Your task to perform on an android device: turn on translation in the chrome app Image 0: 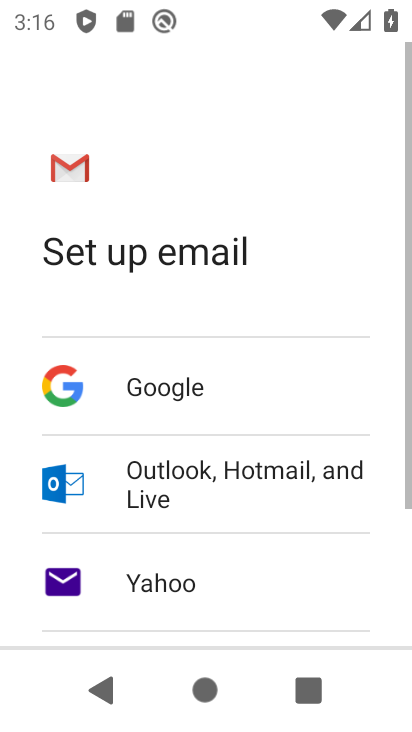
Step 0: press home button
Your task to perform on an android device: turn on translation in the chrome app Image 1: 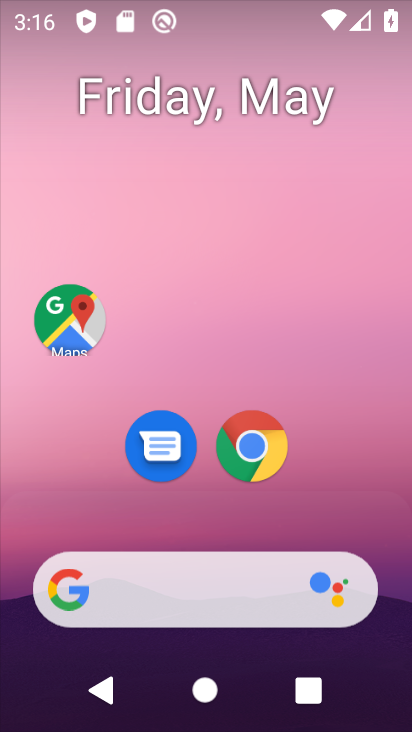
Step 1: click (243, 450)
Your task to perform on an android device: turn on translation in the chrome app Image 2: 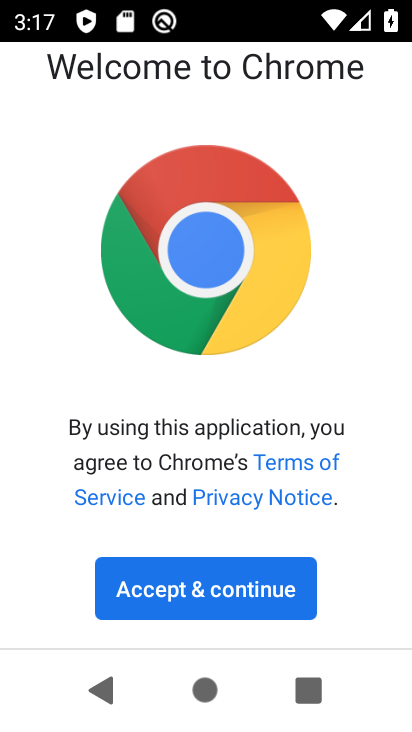
Step 2: click (238, 587)
Your task to perform on an android device: turn on translation in the chrome app Image 3: 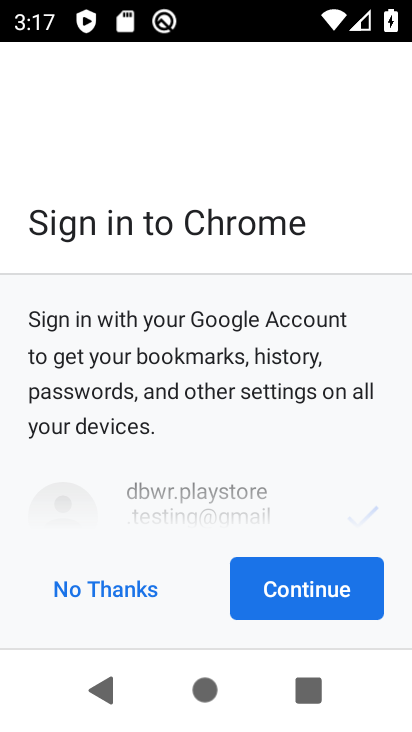
Step 3: click (254, 583)
Your task to perform on an android device: turn on translation in the chrome app Image 4: 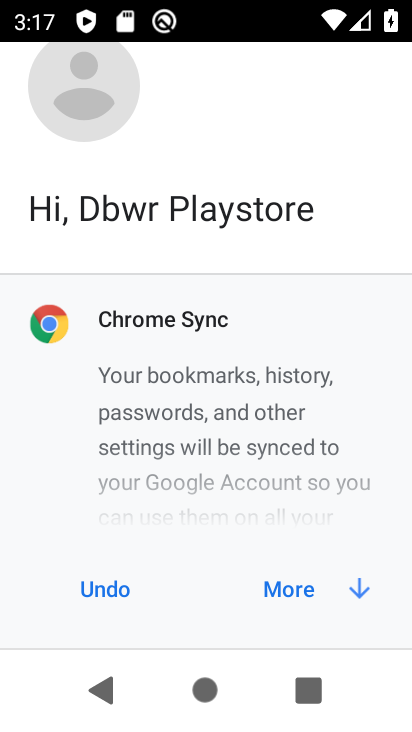
Step 4: click (294, 587)
Your task to perform on an android device: turn on translation in the chrome app Image 5: 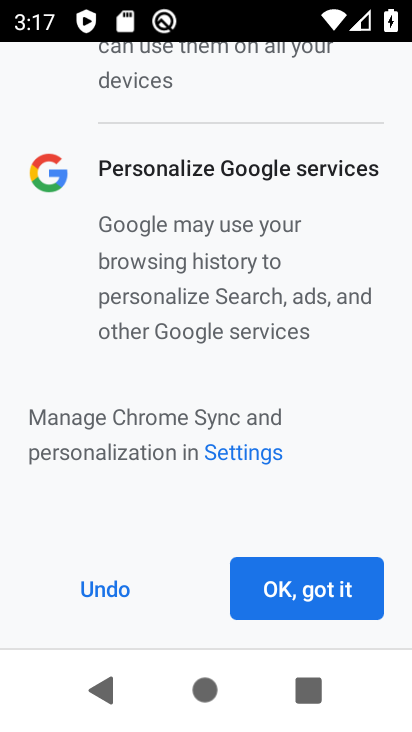
Step 5: click (294, 587)
Your task to perform on an android device: turn on translation in the chrome app Image 6: 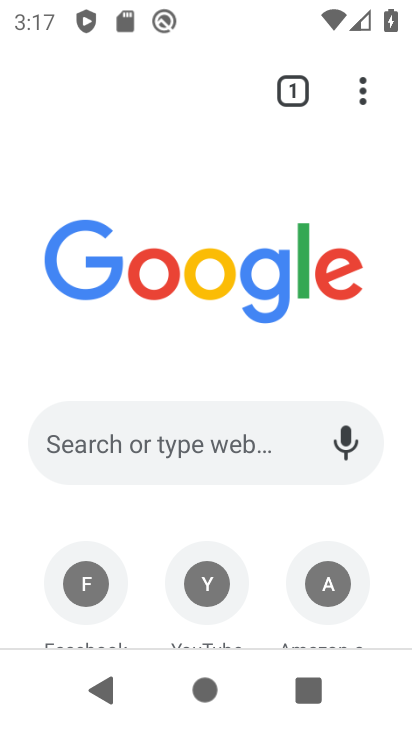
Step 6: drag from (359, 91) to (138, 467)
Your task to perform on an android device: turn on translation in the chrome app Image 7: 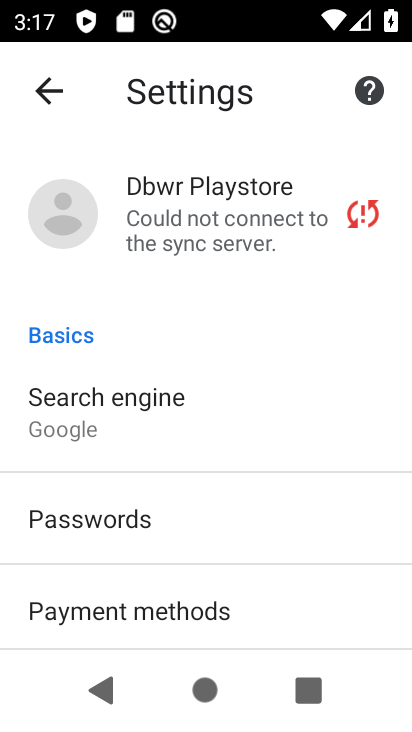
Step 7: drag from (260, 610) to (296, 206)
Your task to perform on an android device: turn on translation in the chrome app Image 8: 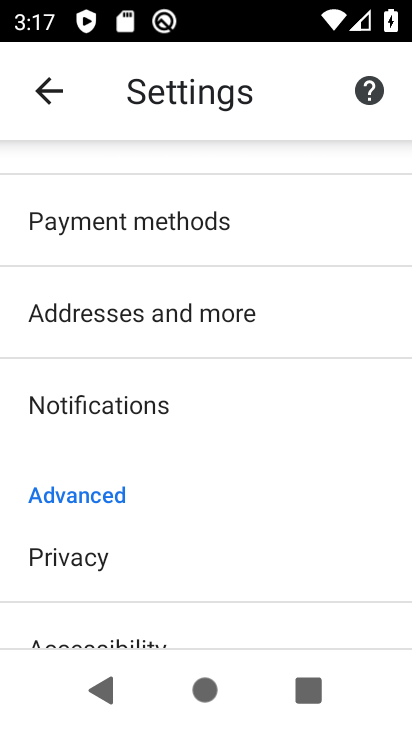
Step 8: drag from (276, 537) to (311, 197)
Your task to perform on an android device: turn on translation in the chrome app Image 9: 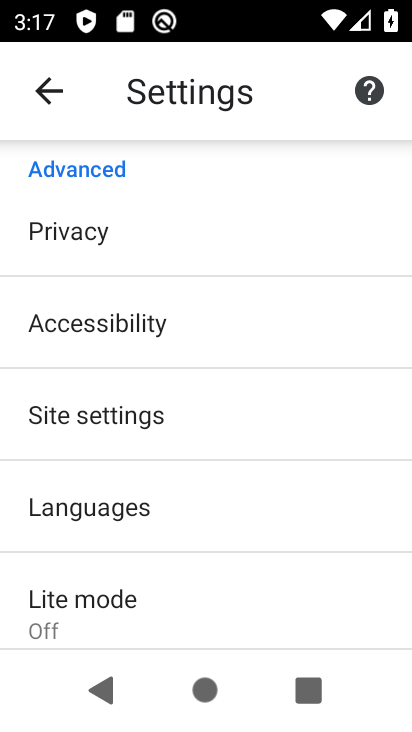
Step 9: click (83, 510)
Your task to perform on an android device: turn on translation in the chrome app Image 10: 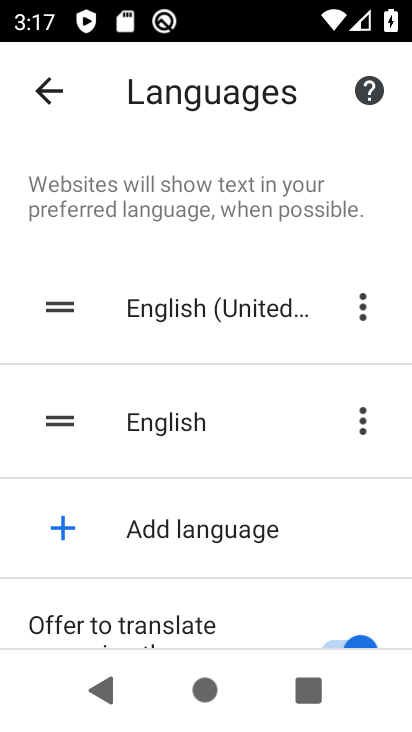
Step 10: task complete